Your task to perform on an android device: see tabs open on other devices in the chrome app Image 0: 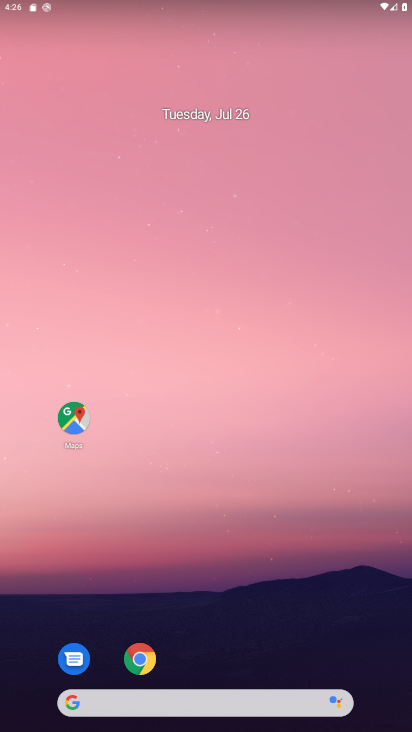
Step 0: press home button
Your task to perform on an android device: see tabs open on other devices in the chrome app Image 1: 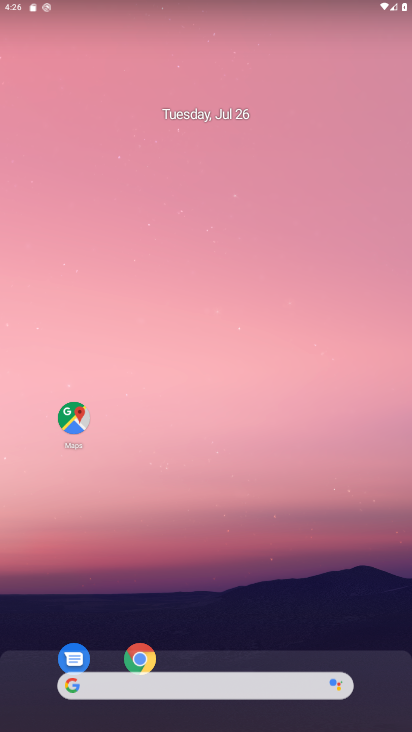
Step 1: click (142, 653)
Your task to perform on an android device: see tabs open on other devices in the chrome app Image 2: 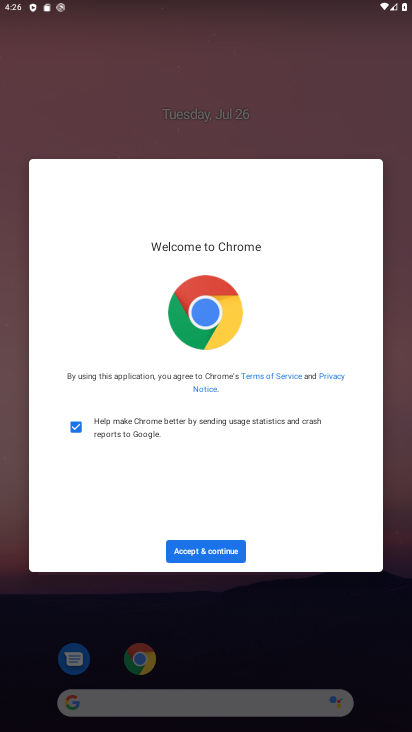
Step 2: click (202, 545)
Your task to perform on an android device: see tabs open on other devices in the chrome app Image 3: 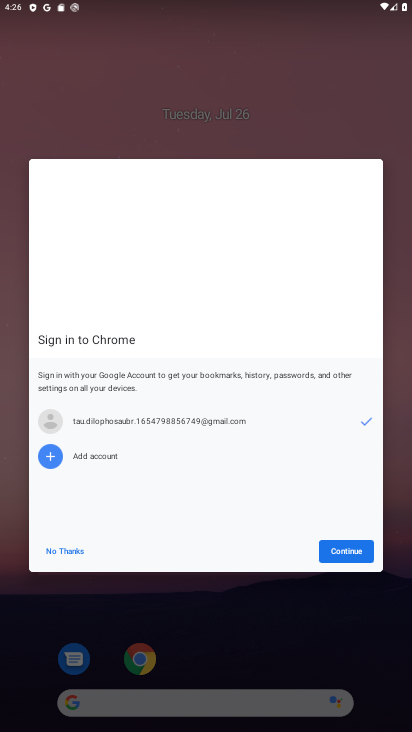
Step 3: click (344, 548)
Your task to perform on an android device: see tabs open on other devices in the chrome app Image 4: 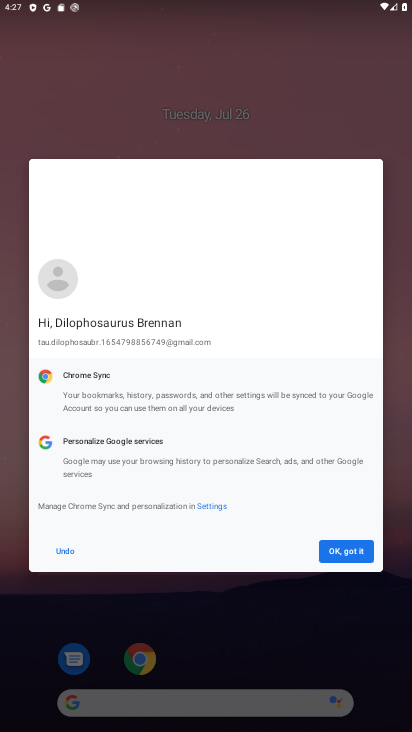
Step 4: click (353, 551)
Your task to perform on an android device: see tabs open on other devices in the chrome app Image 5: 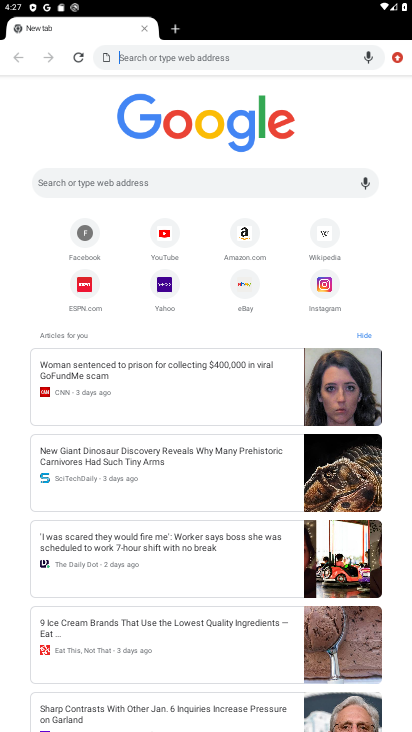
Step 5: click (397, 56)
Your task to perform on an android device: see tabs open on other devices in the chrome app Image 6: 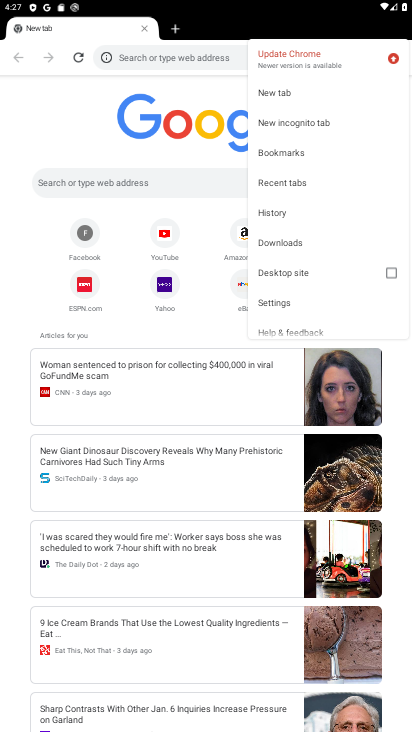
Step 6: click (306, 184)
Your task to perform on an android device: see tabs open on other devices in the chrome app Image 7: 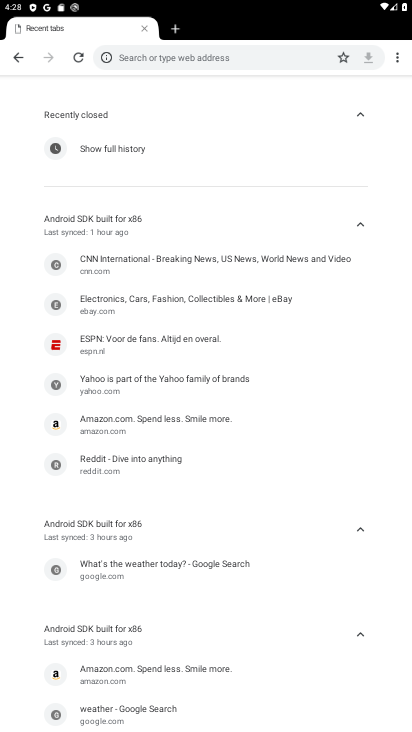
Step 7: task complete